Your task to perform on an android device: find photos in the google photos app Image 0: 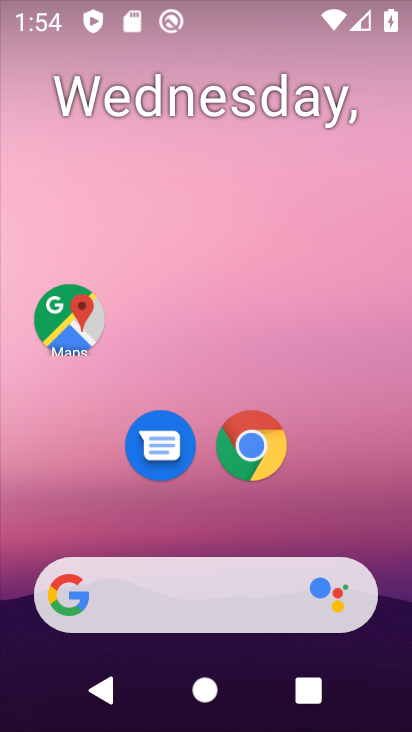
Step 0: drag from (197, 534) to (178, 185)
Your task to perform on an android device: find photos in the google photos app Image 1: 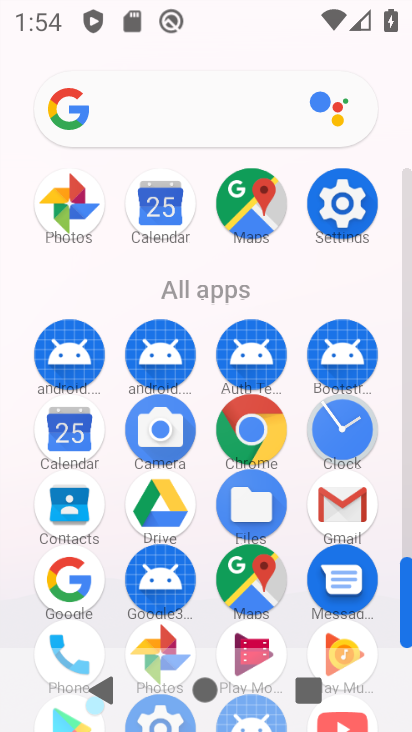
Step 1: click (78, 197)
Your task to perform on an android device: find photos in the google photos app Image 2: 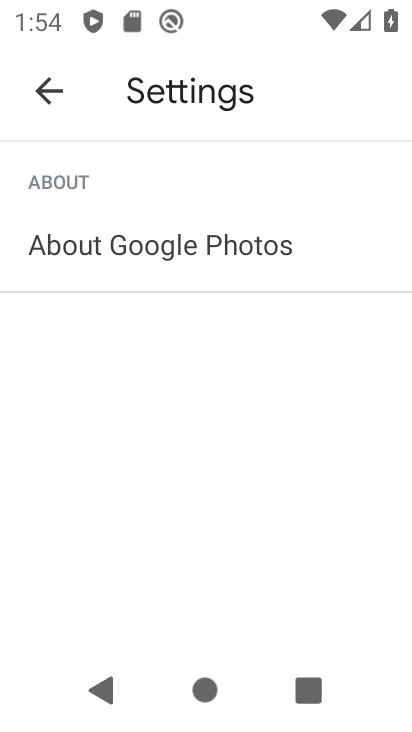
Step 2: click (56, 89)
Your task to perform on an android device: find photos in the google photos app Image 3: 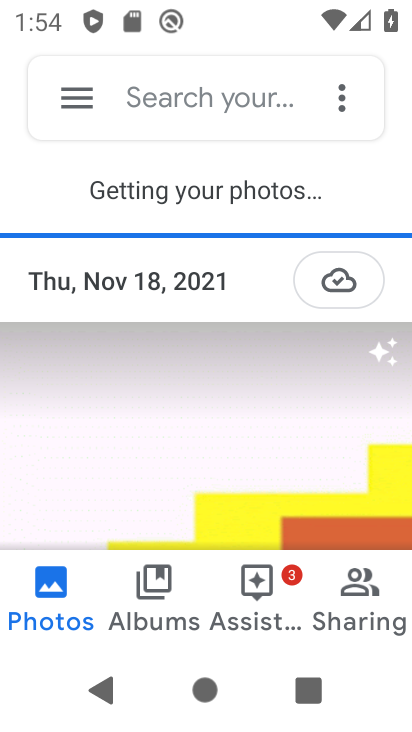
Step 3: click (192, 107)
Your task to perform on an android device: find photos in the google photos app Image 4: 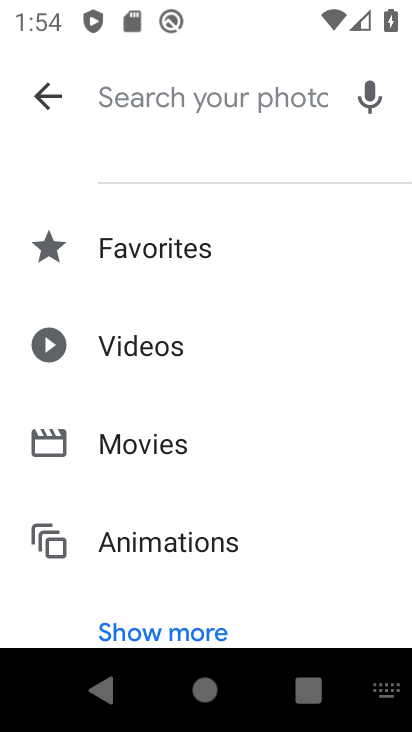
Step 4: type "aa"
Your task to perform on an android device: find photos in the google photos app Image 5: 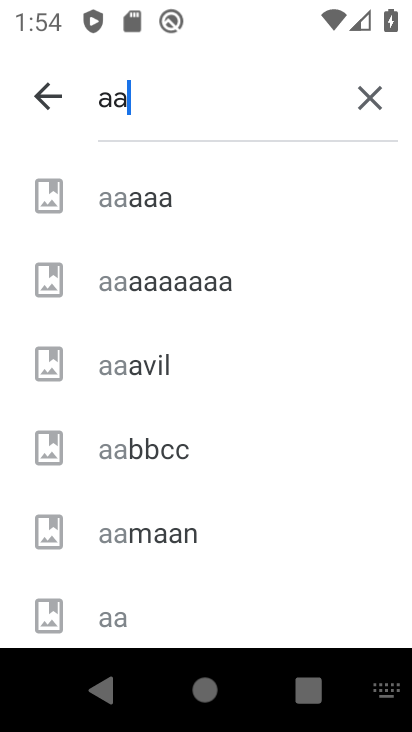
Step 5: click (208, 204)
Your task to perform on an android device: find photos in the google photos app Image 6: 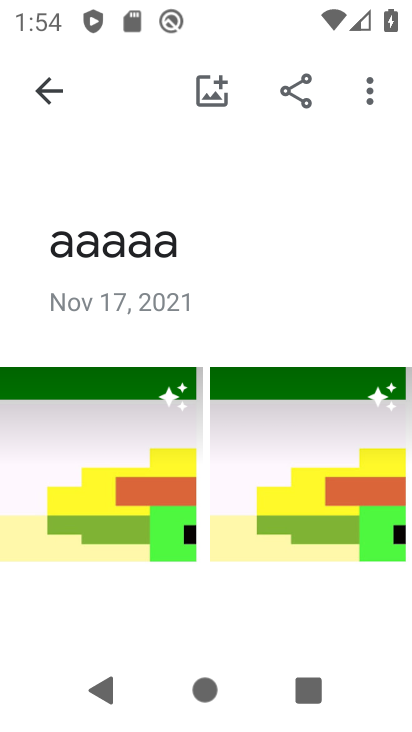
Step 6: task complete